Your task to perform on an android device: Go to notification settings Image 0: 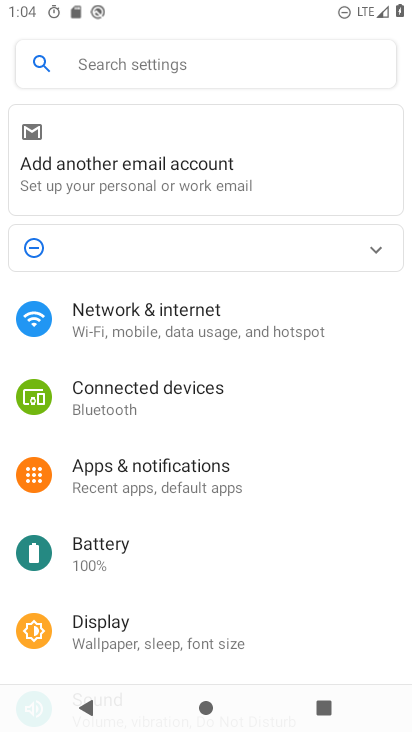
Step 0: click (130, 470)
Your task to perform on an android device: Go to notification settings Image 1: 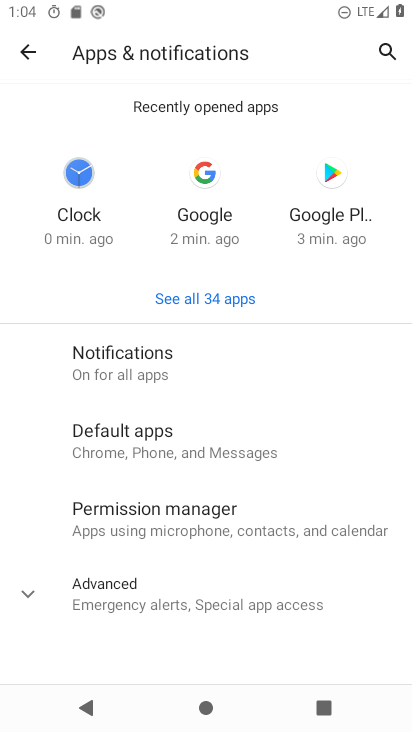
Step 1: task complete